Your task to perform on an android device: What's the weather? Image 0: 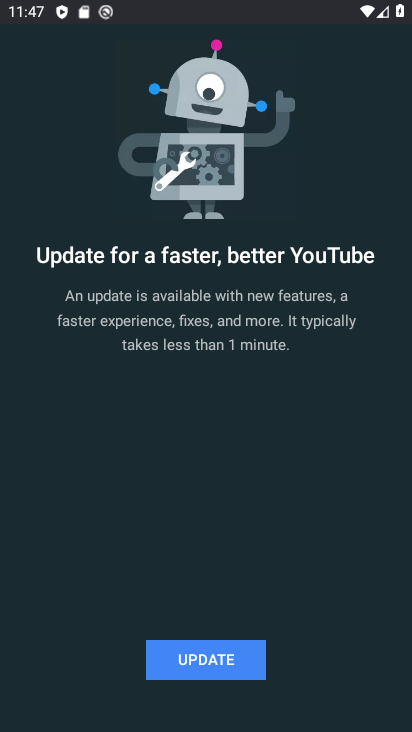
Step 0: press home button
Your task to perform on an android device: What's the weather? Image 1: 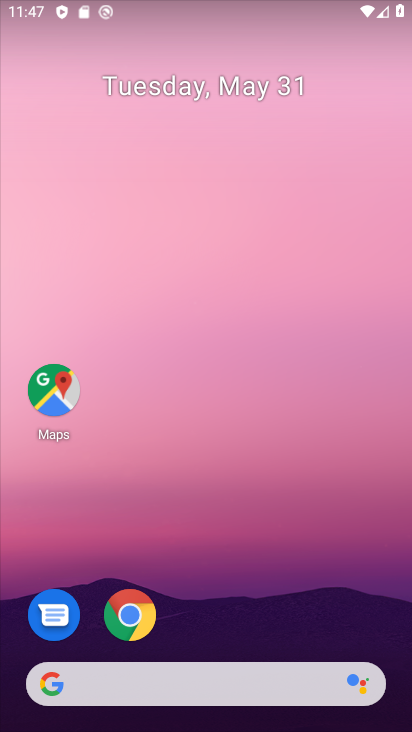
Step 1: drag from (14, 279) to (379, 260)
Your task to perform on an android device: What's the weather? Image 2: 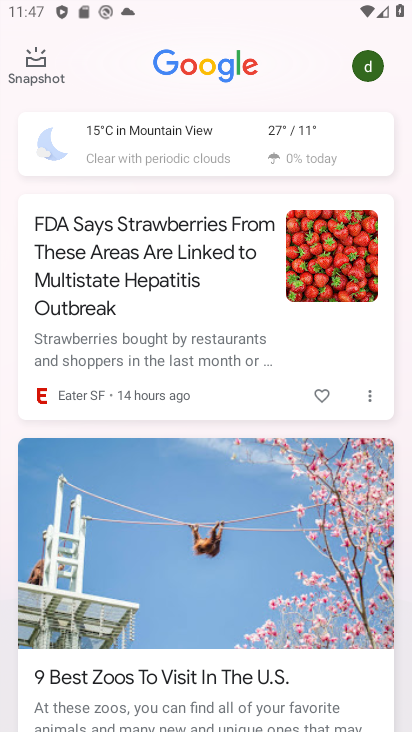
Step 2: click (201, 159)
Your task to perform on an android device: What's the weather? Image 3: 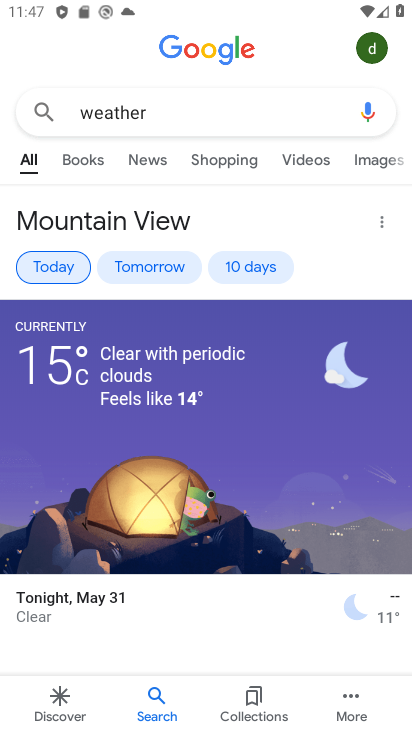
Step 3: task complete